Your task to perform on an android device: Search for sushi restaurants on Maps Image 0: 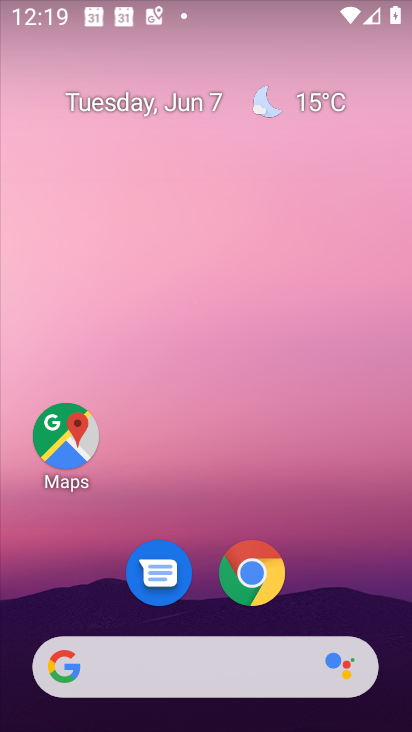
Step 0: click (46, 423)
Your task to perform on an android device: Search for sushi restaurants on Maps Image 1: 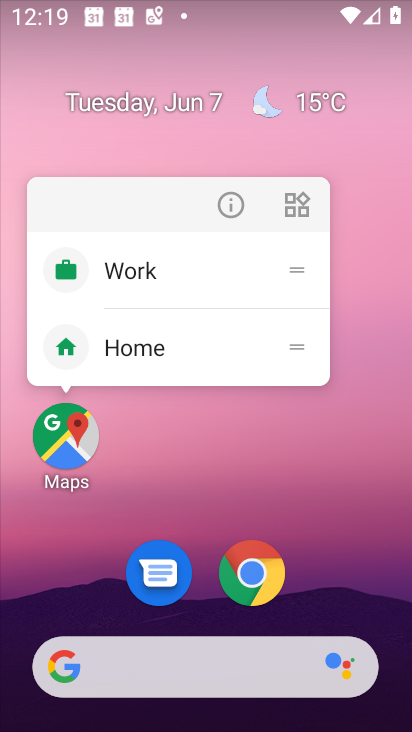
Step 1: click (84, 431)
Your task to perform on an android device: Search for sushi restaurants on Maps Image 2: 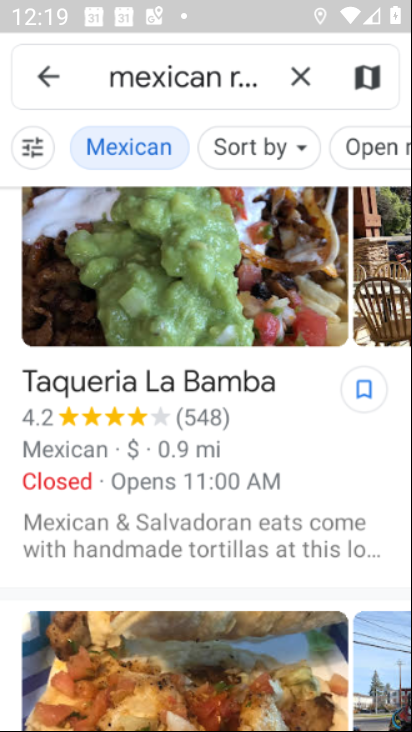
Step 2: click (306, 82)
Your task to perform on an android device: Search for sushi restaurants on Maps Image 3: 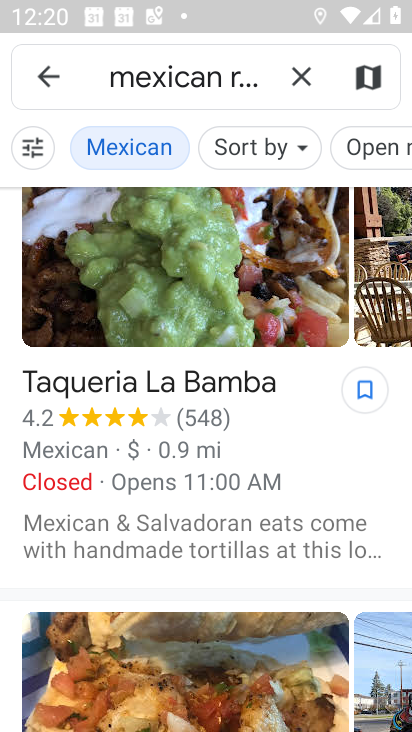
Step 3: click (302, 77)
Your task to perform on an android device: Search for sushi restaurants on Maps Image 4: 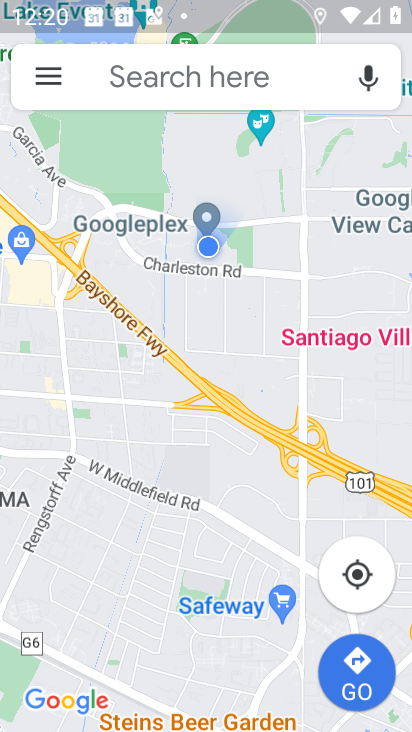
Step 4: click (208, 85)
Your task to perform on an android device: Search for sushi restaurants on Maps Image 5: 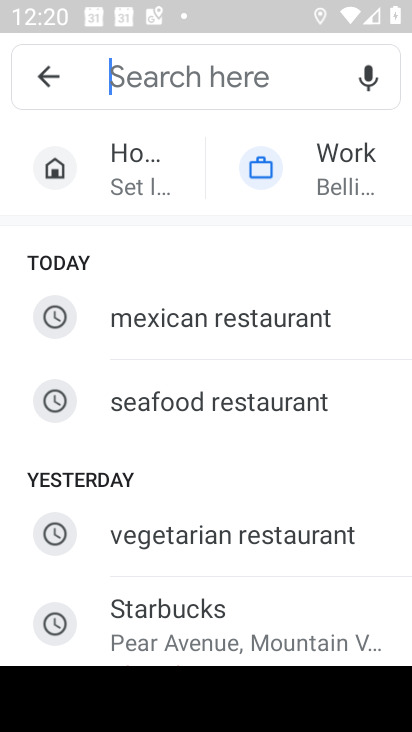
Step 5: type "sushi restaurants"
Your task to perform on an android device: Search for sushi restaurants on Maps Image 6: 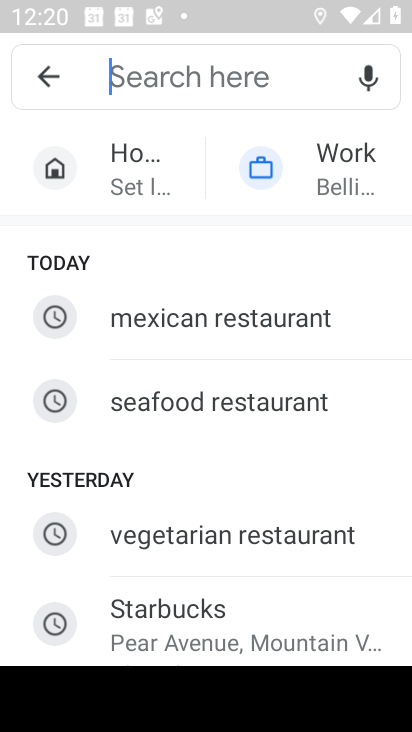
Step 6: click (244, 69)
Your task to perform on an android device: Search for sushi restaurants on Maps Image 7: 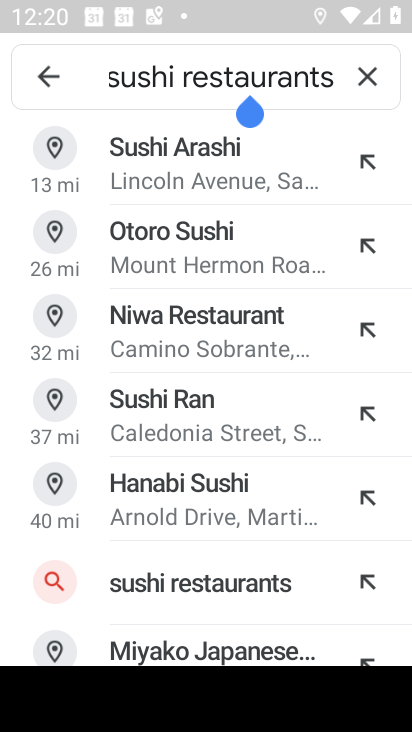
Step 7: drag from (253, 110) to (356, 102)
Your task to perform on an android device: Search for sushi restaurants on Maps Image 8: 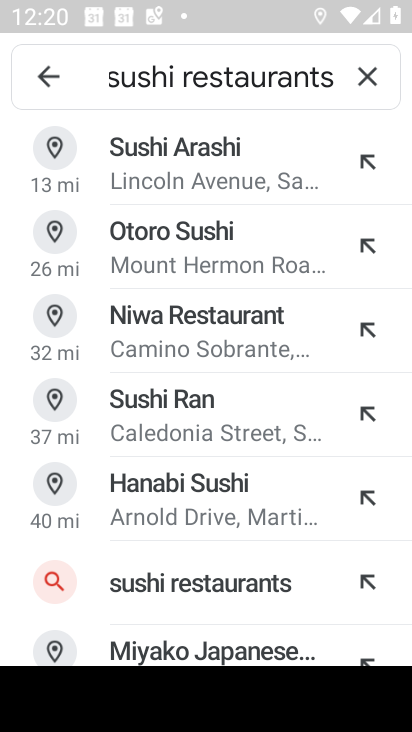
Step 8: click (219, 582)
Your task to perform on an android device: Search for sushi restaurants on Maps Image 9: 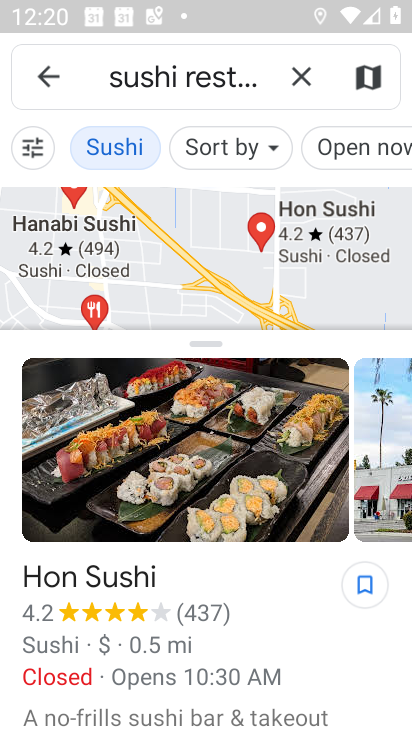
Step 9: task complete